Your task to perform on an android device: turn on improve location accuracy Image 0: 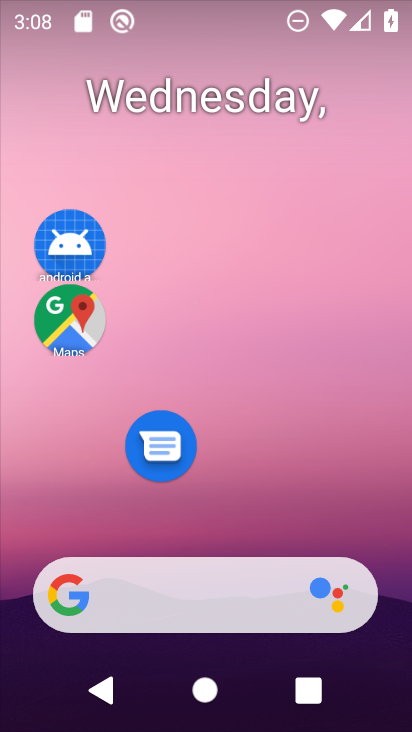
Step 0: drag from (267, 501) to (307, 187)
Your task to perform on an android device: turn on improve location accuracy Image 1: 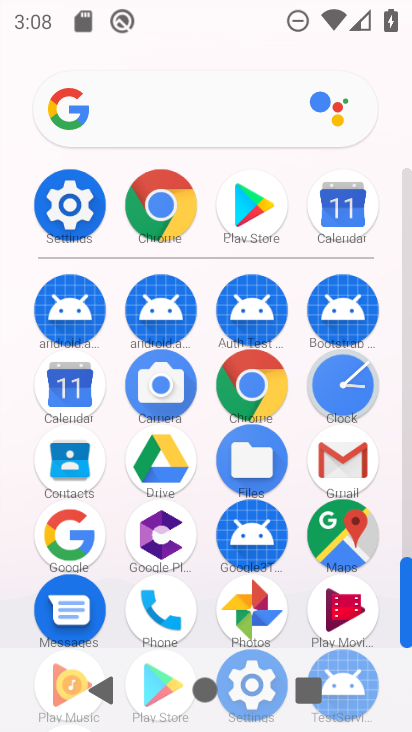
Step 1: click (82, 222)
Your task to perform on an android device: turn on improve location accuracy Image 2: 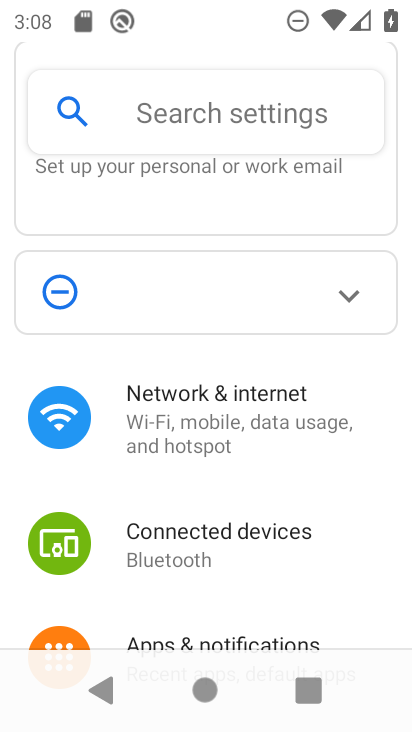
Step 2: drag from (220, 565) to (278, 336)
Your task to perform on an android device: turn on improve location accuracy Image 3: 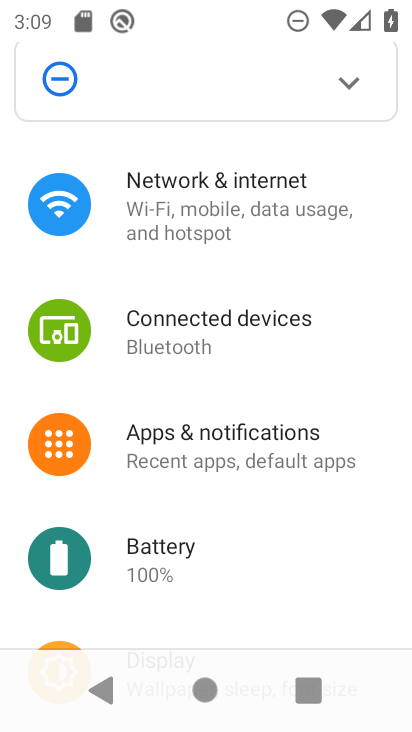
Step 3: drag from (200, 530) to (224, 234)
Your task to perform on an android device: turn on improve location accuracy Image 4: 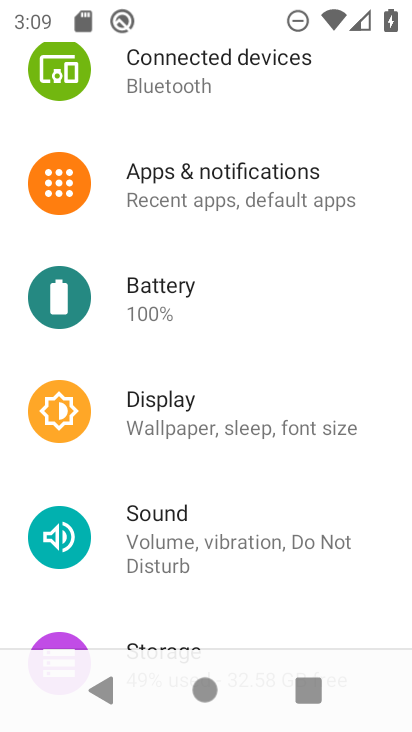
Step 4: drag from (192, 633) to (218, 291)
Your task to perform on an android device: turn on improve location accuracy Image 5: 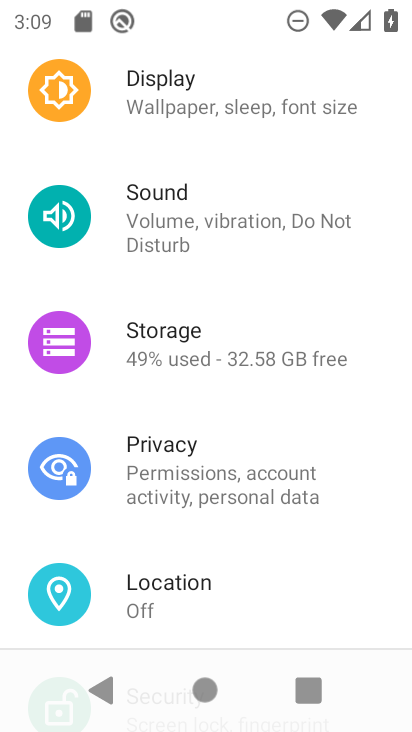
Step 5: click (229, 596)
Your task to perform on an android device: turn on improve location accuracy Image 6: 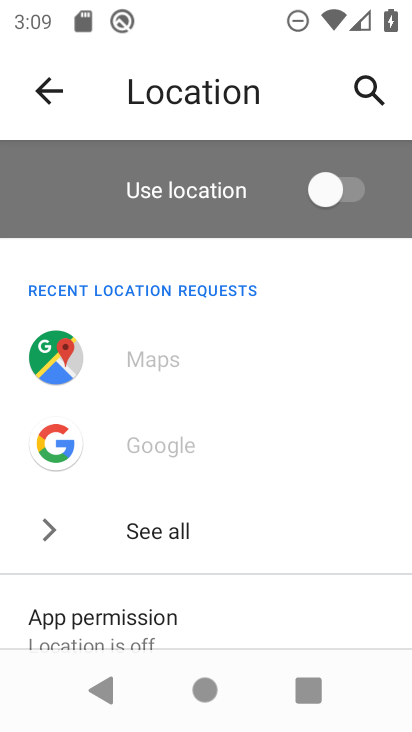
Step 6: click (314, 200)
Your task to perform on an android device: turn on improve location accuracy Image 7: 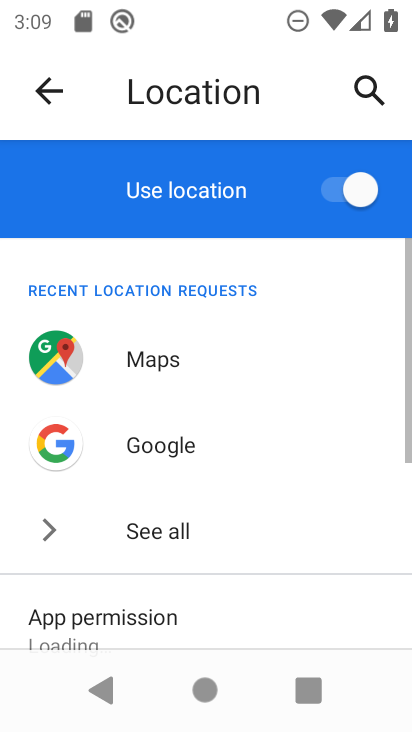
Step 7: task complete